Your task to perform on an android device: empty trash in the gmail app Image 0: 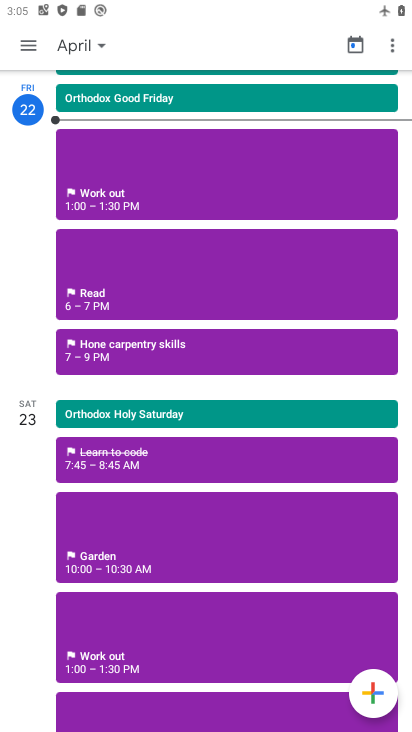
Step 0: press back button
Your task to perform on an android device: empty trash in the gmail app Image 1: 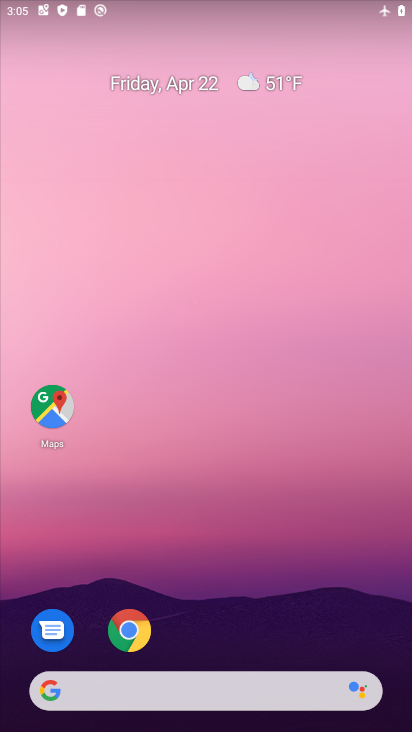
Step 1: drag from (183, 614) to (187, 117)
Your task to perform on an android device: empty trash in the gmail app Image 2: 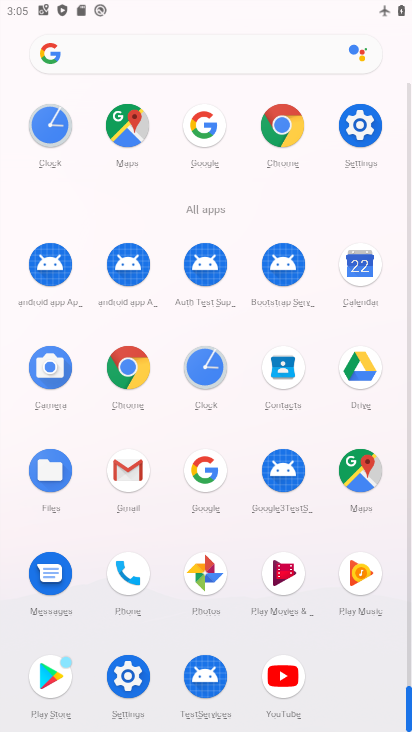
Step 2: click (125, 470)
Your task to perform on an android device: empty trash in the gmail app Image 3: 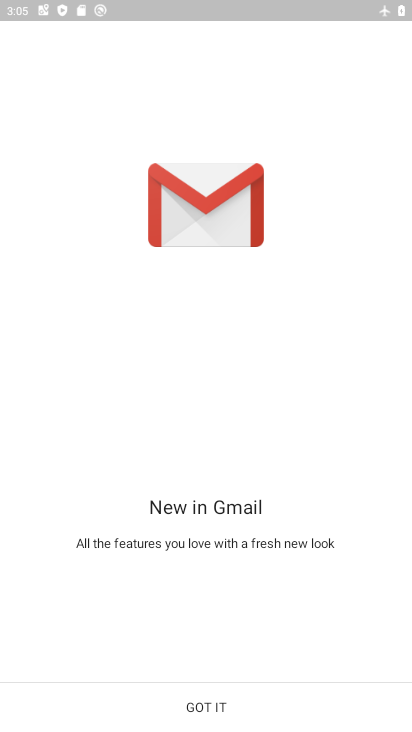
Step 3: click (210, 700)
Your task to perform on an android device: empty trash in the gmail app Image 4: 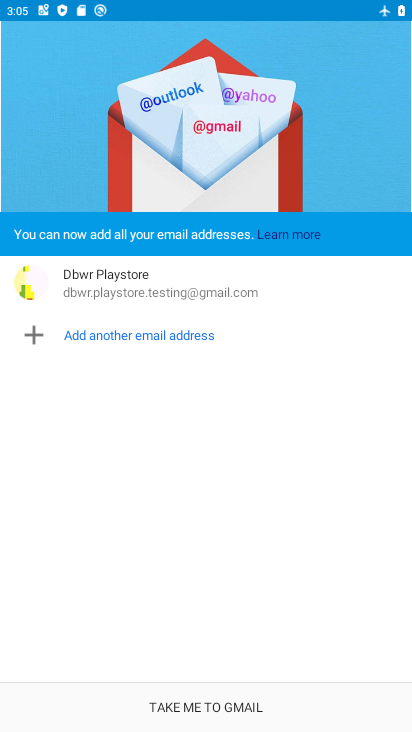
Step 4: click (210, 700)
Your task to perform on an android device: empty trash in the gmail app Image 5: 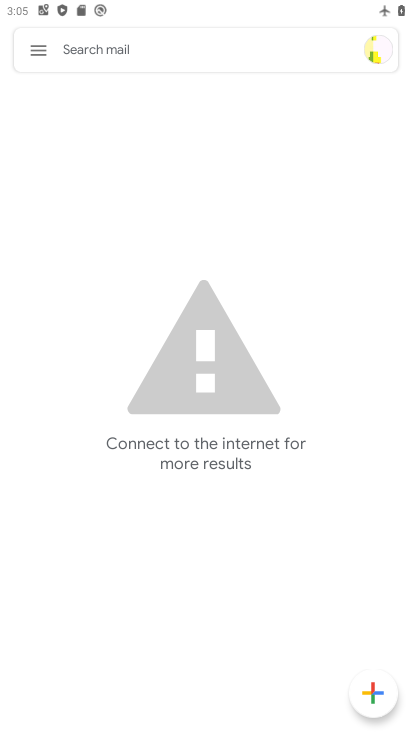
Step 5: click (35, 54)
Your task to perform on an android device: empty trash in the gmail app Image 6: 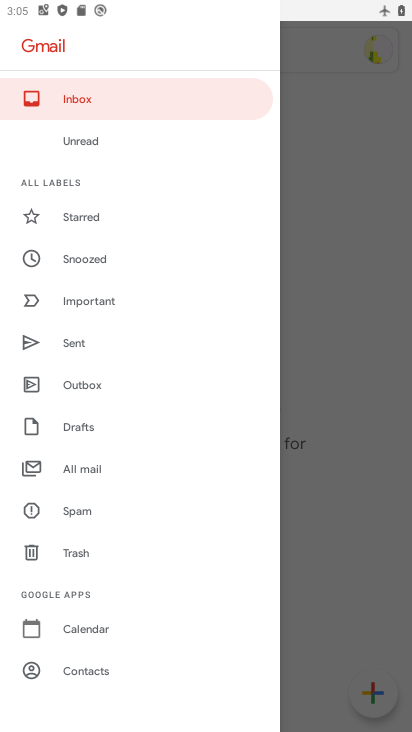
Step 6: click (84, 547)
Your task to perform on an android device: empty trash in the gmail app Image 7: 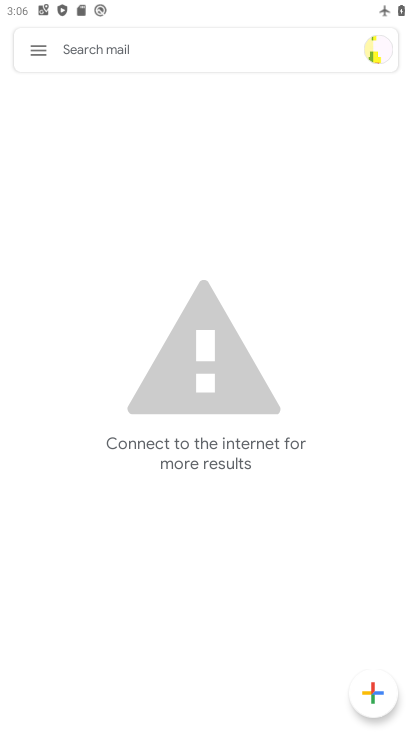
Step 7: task complete